Your task to perform on an android device: open wifi settings Image 0: 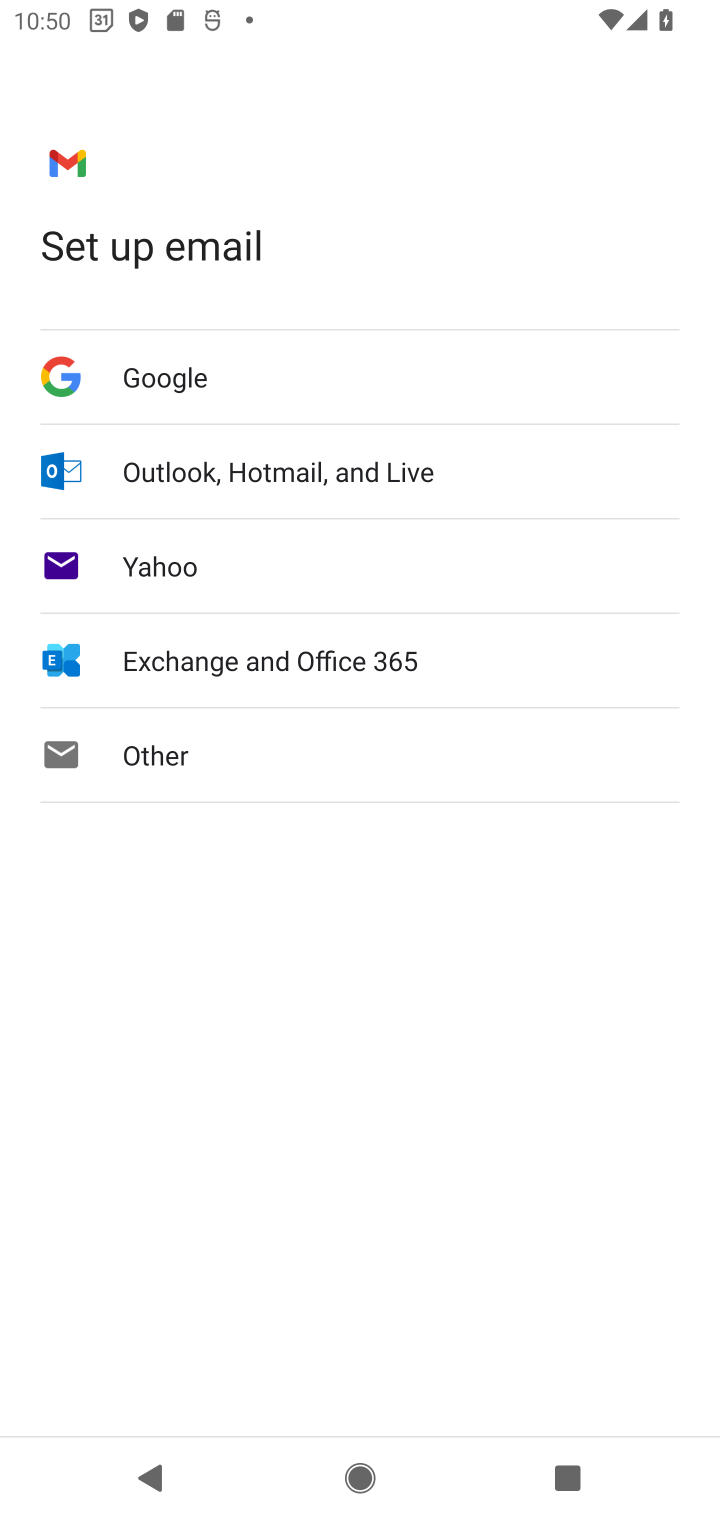
Step 0: press home button
Your task to perform on an android device: open wifi settings Image 1: 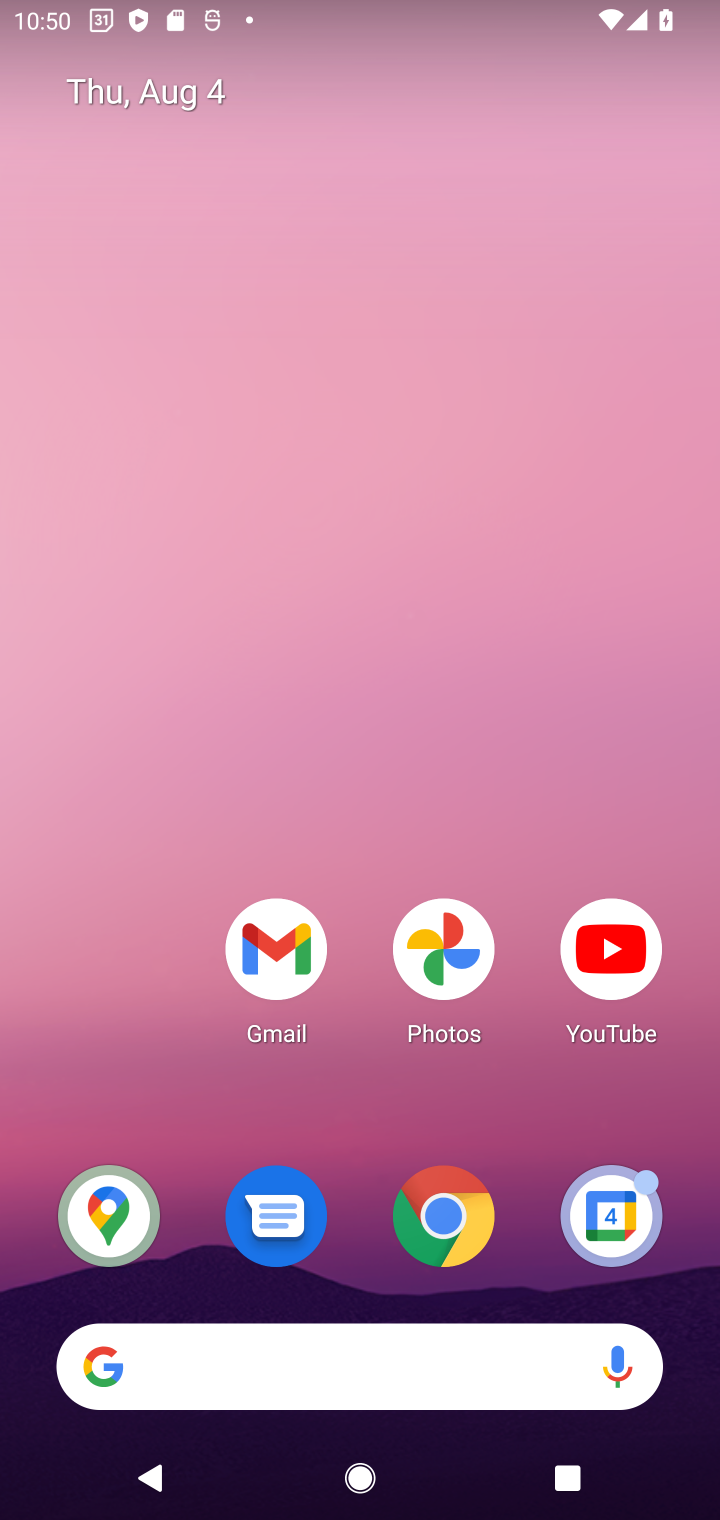
Step 1: drag from (313, 1343) to (374, 220)
Your task to perform on an android device: open wifi settings Image 2: 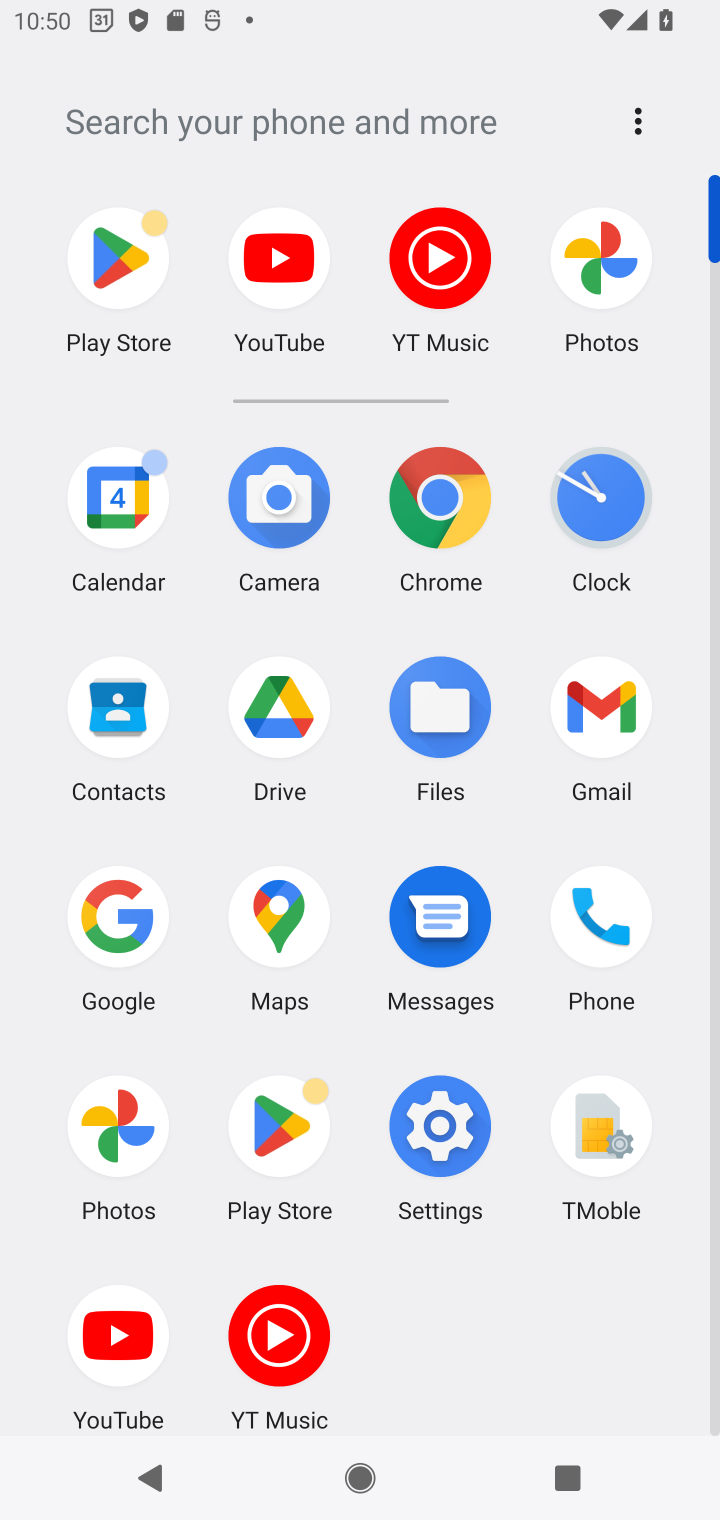
Step 2: click (432, 1121)
Your task to perform on an android device: open wifi settings Image 3: 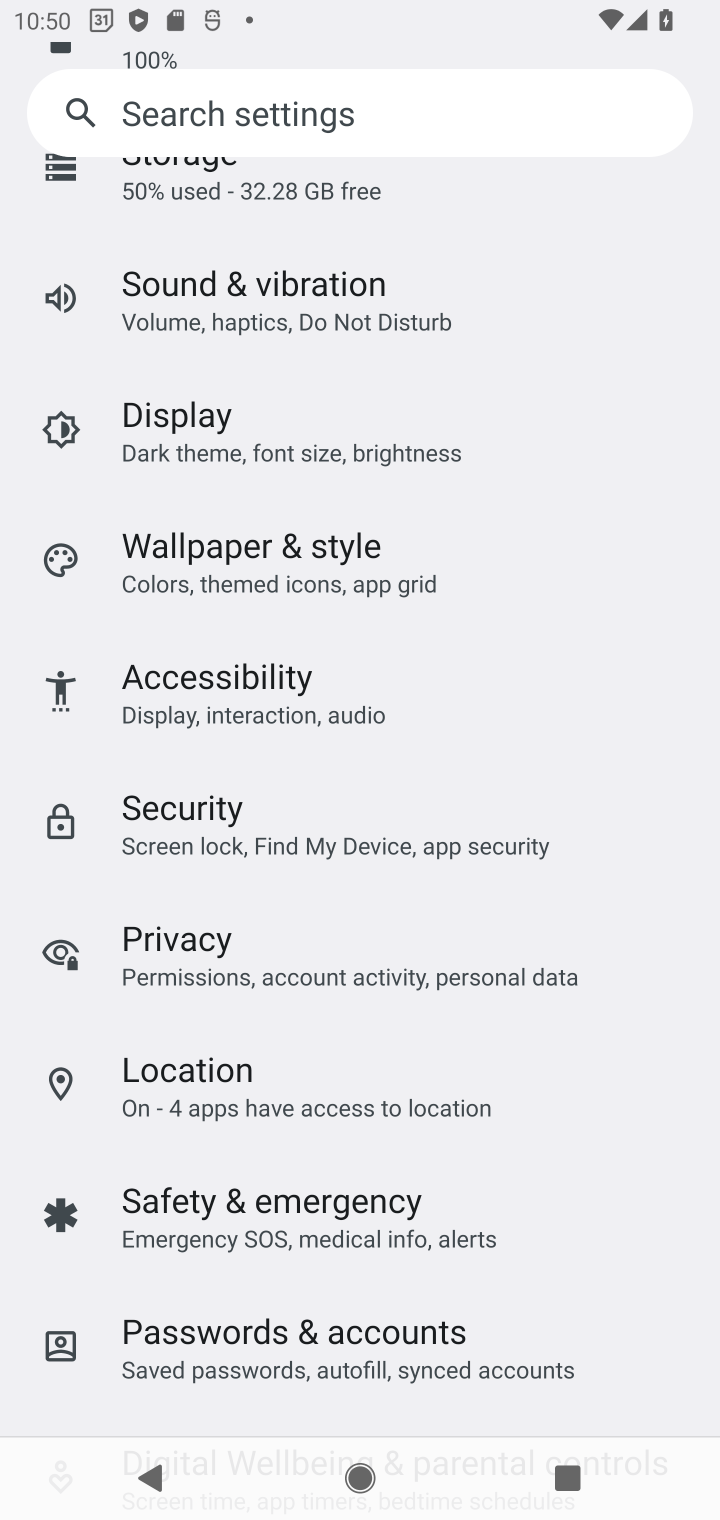
Step 3: drag from (356, 483) to (402, 901)
Your task to perform on an android device: open wifi settings Image 4: 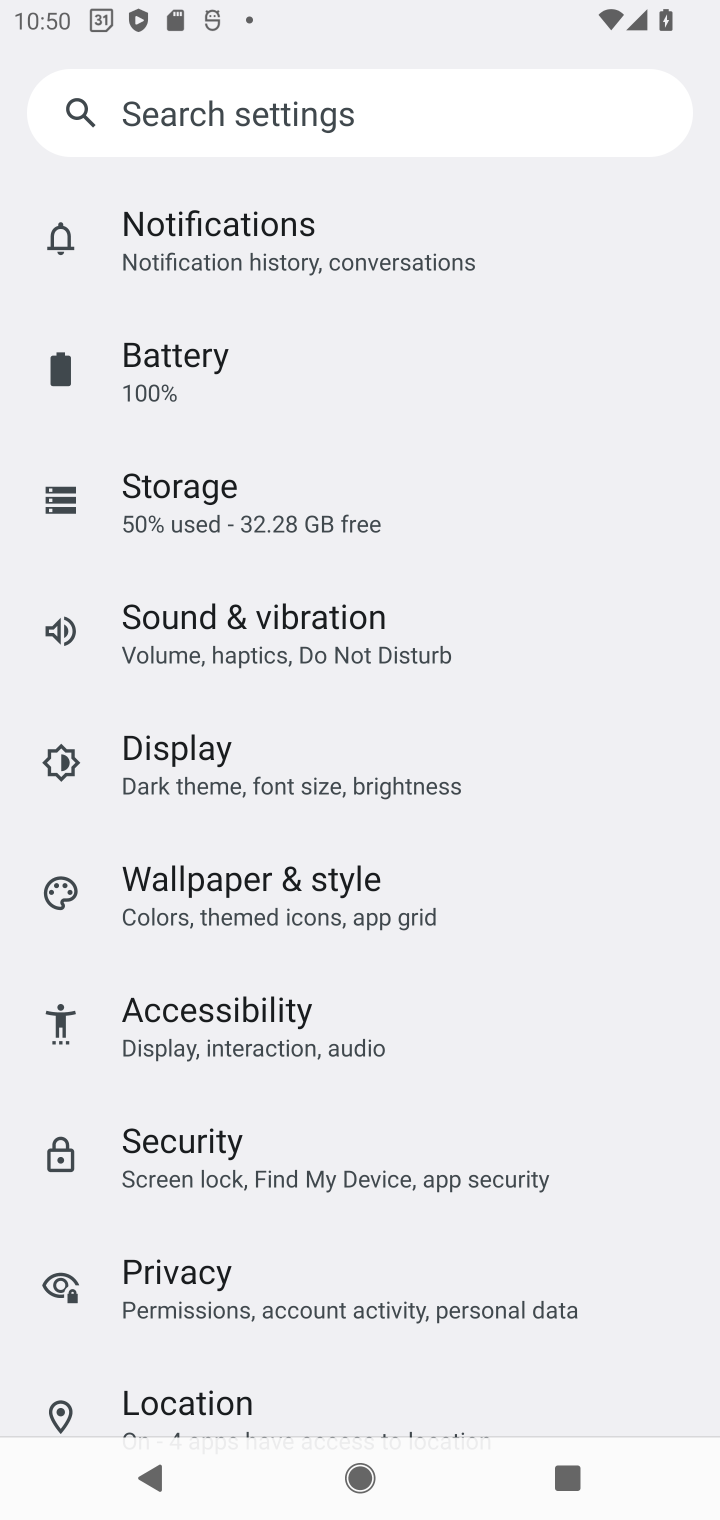
Step 4: drag from (379, 319) to (473, 996)
Your task to perform on an android device: open wifi settings Image 5: 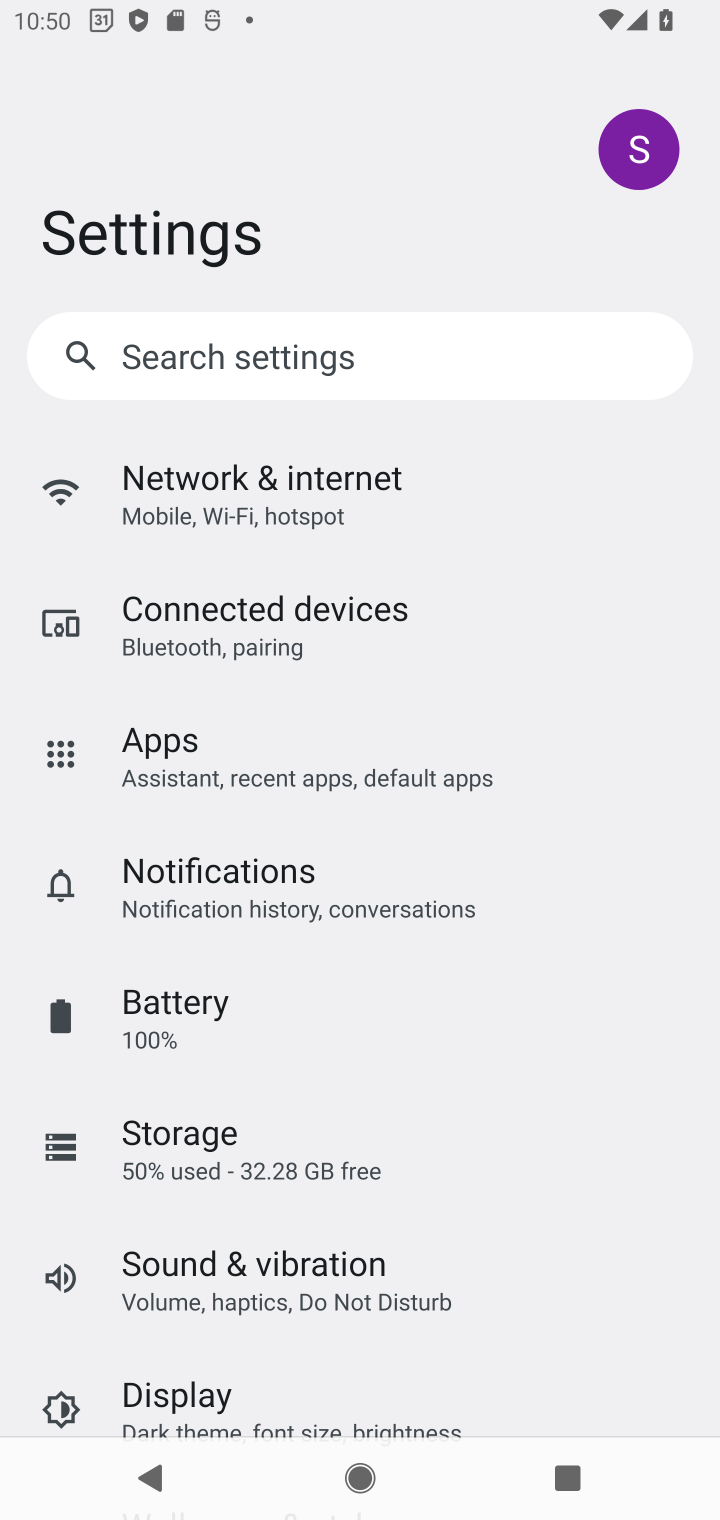
Step 5: click (295, 514)
Your task to perform on an android device: open wifi settings Image 6: 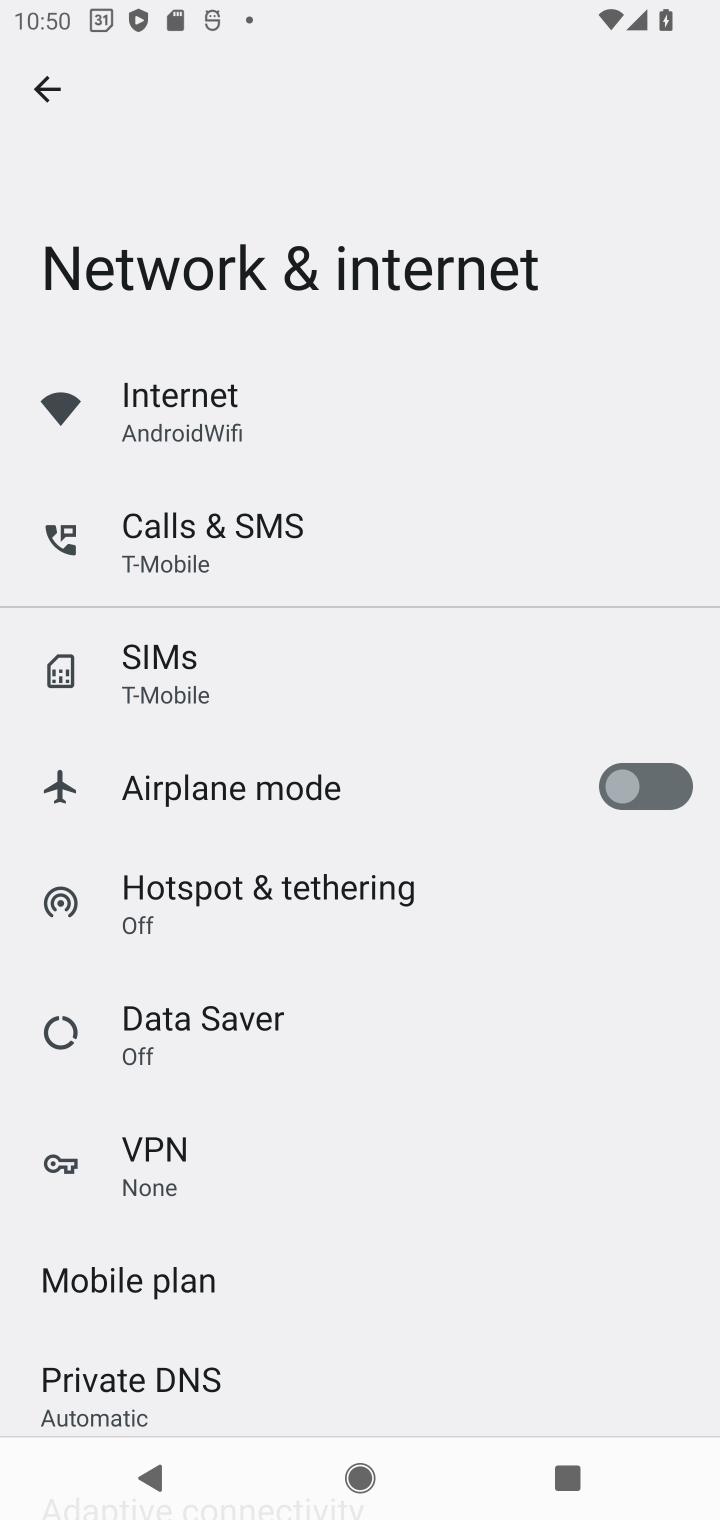
Step 6: click (204, 409)
Your task to perform on an android device: open wifi settings Image 7: 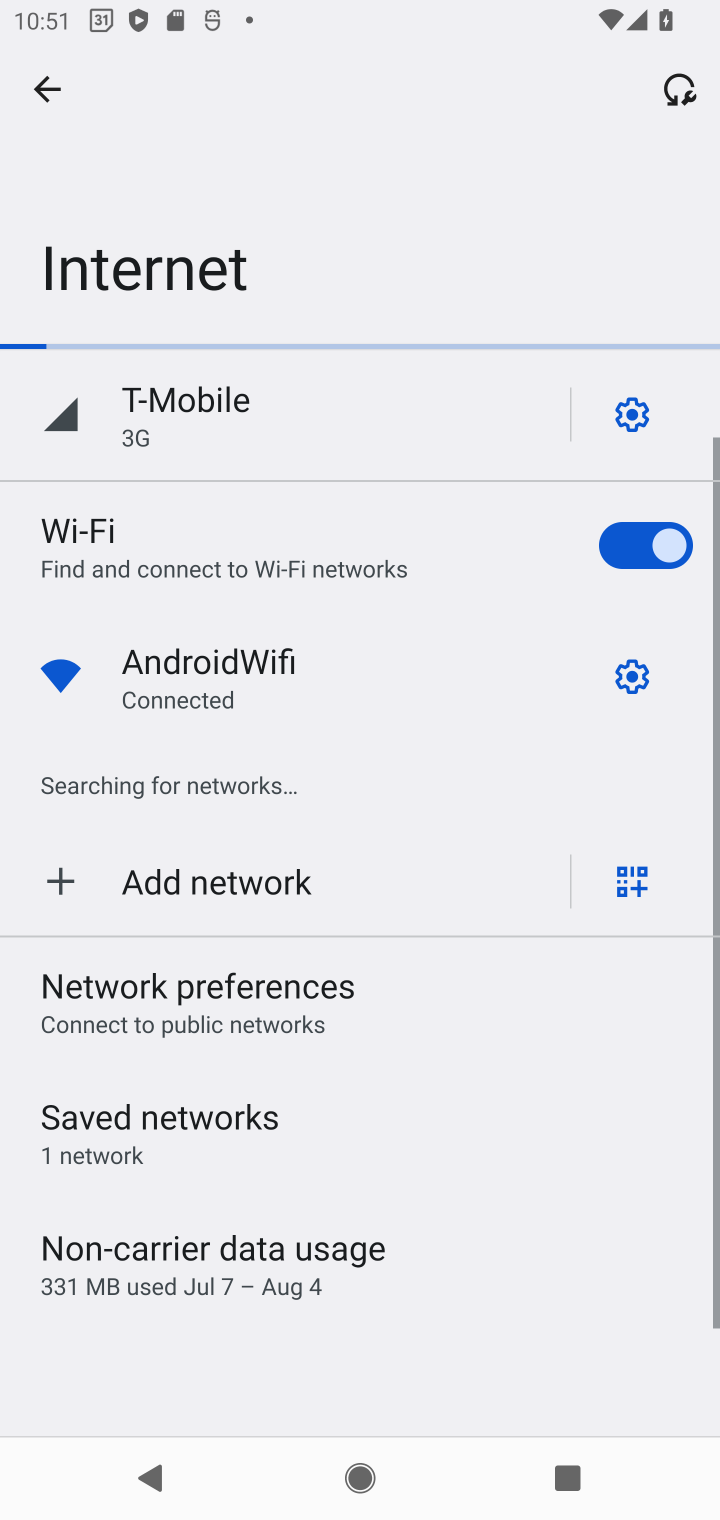
Step 7: click (624, 675)
Your task to perform on an android device: open wifi settings Image 8: 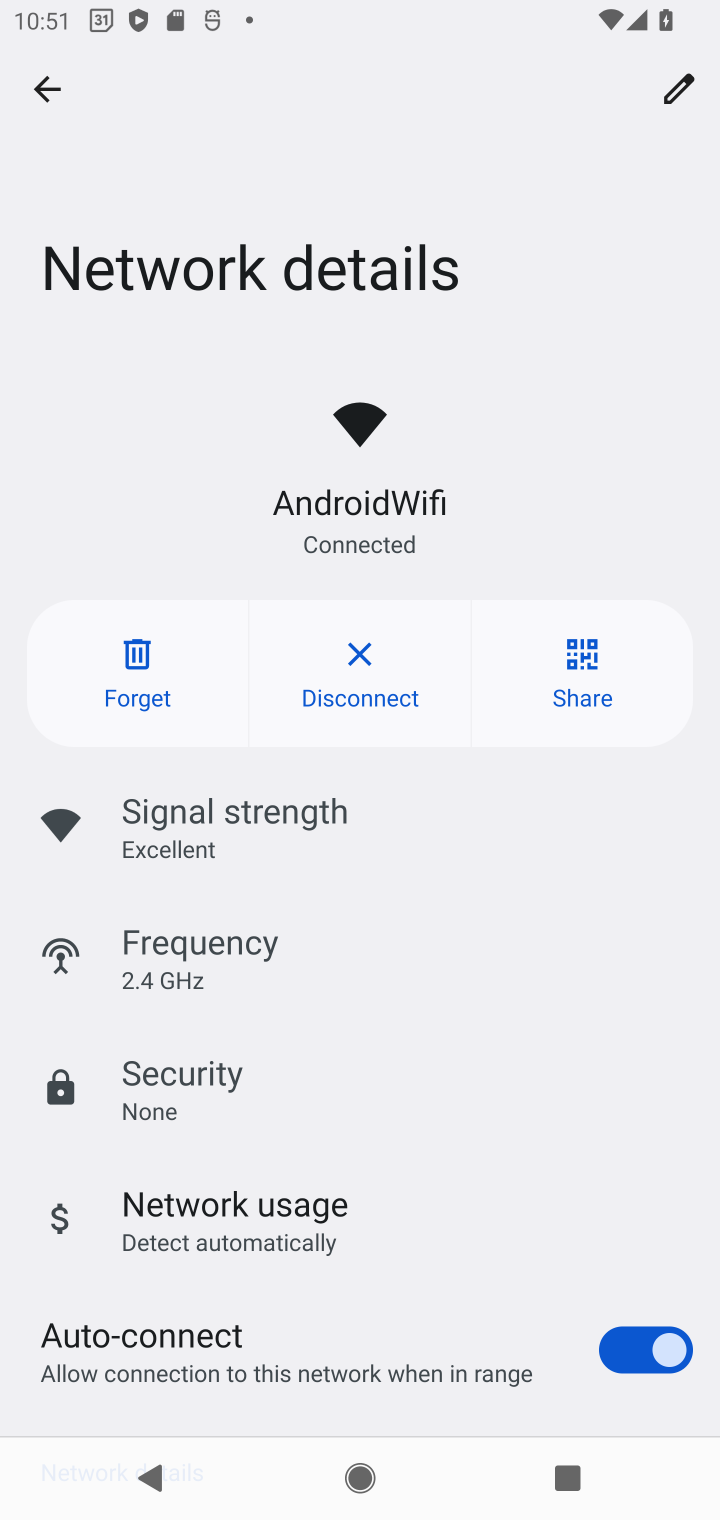
Step 8: task complete